Your task to perform on an android device: Is it going to rain this weekend? Image 0: 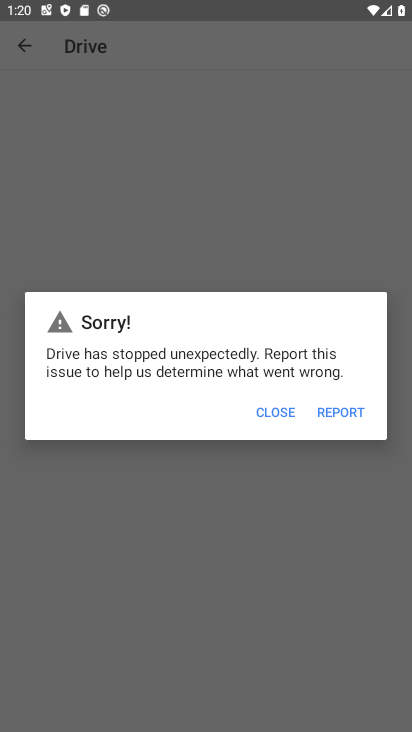
Step 0: press home button
Your task to perform on an android device: Is it going to rain this weekend? Image 1: 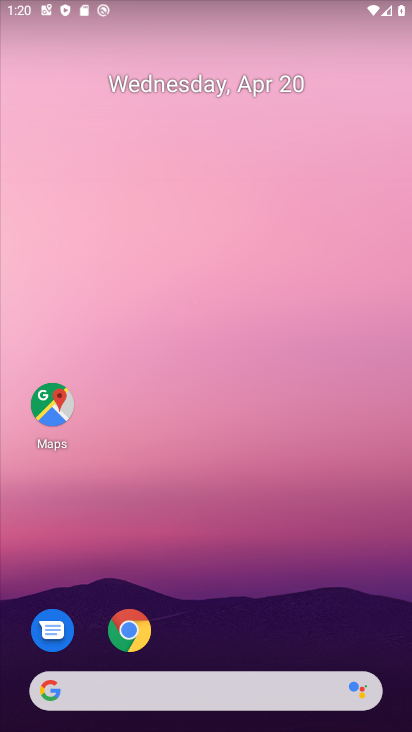
Step 1: click (153, 625)
Your task to perform on an android device: Is it going to rain this weekend? Image 2: 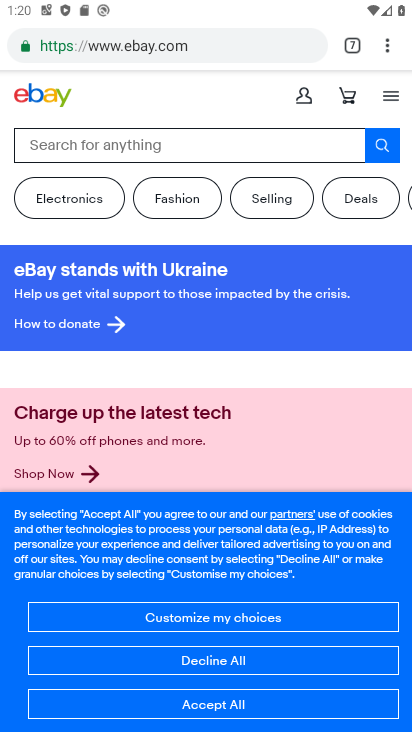
Step 2: click (353, 42)
Your task to perform on an android device: Is it going to rain this weekend? Image 3: 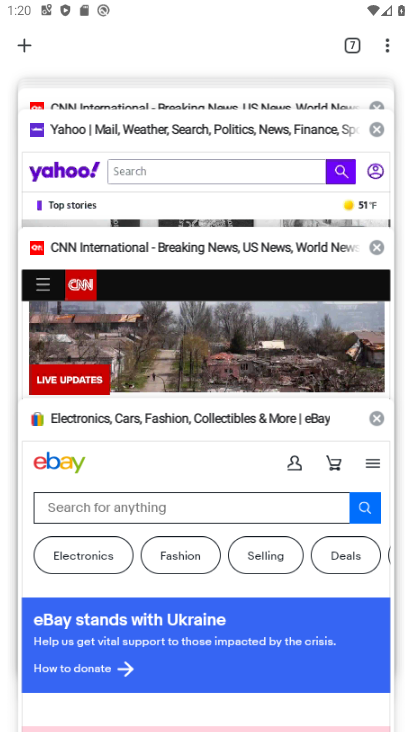
Step 3: click (20, 38)
Your task to perform on an android device: Is it going to rain this weekend? Image 4: 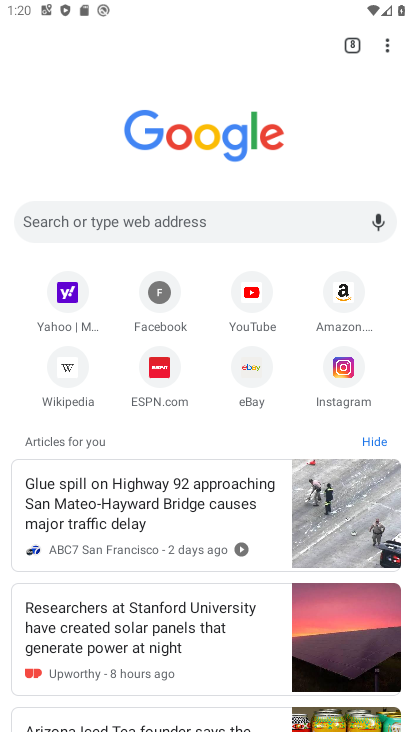
Step 4: click (155, 219)
Your task to perform on an android device: Is it going to rain this weekend? Image 5: 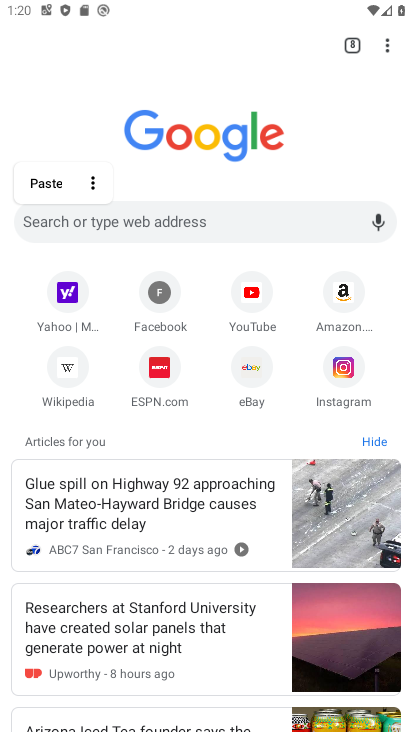
Step 5: click (155, 215)
Your task to perform on an android device: Is it going to rain this weekend? Image 6: 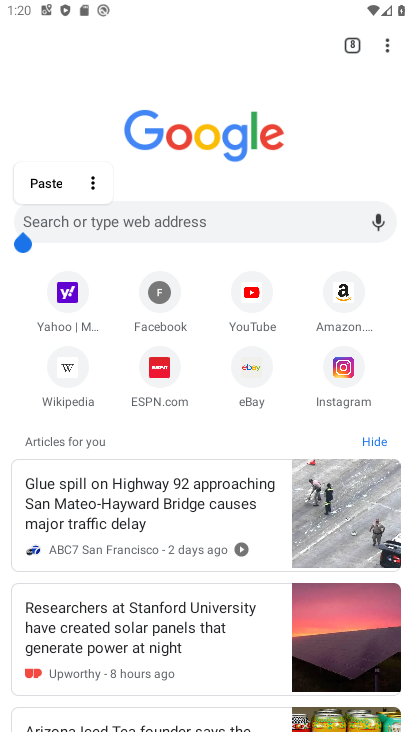
Step 6: click (155, 222)
Your task to perform on an android device: Is it going to rain this weekend? Image 7: 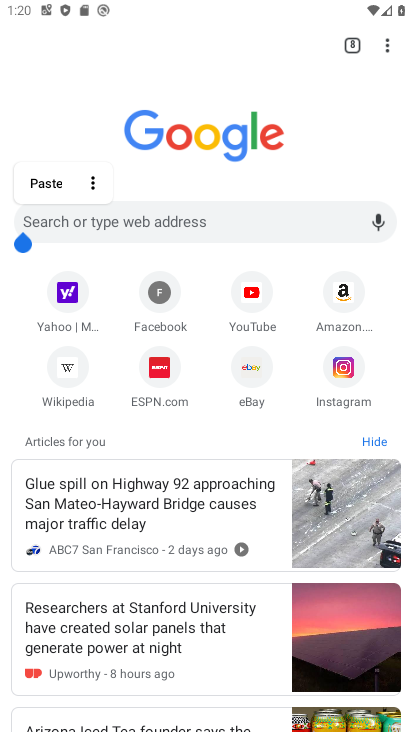
Step 7: click (162, 216)
Your task to perform on an android device: Is it going to rain this weekend? Image 8: 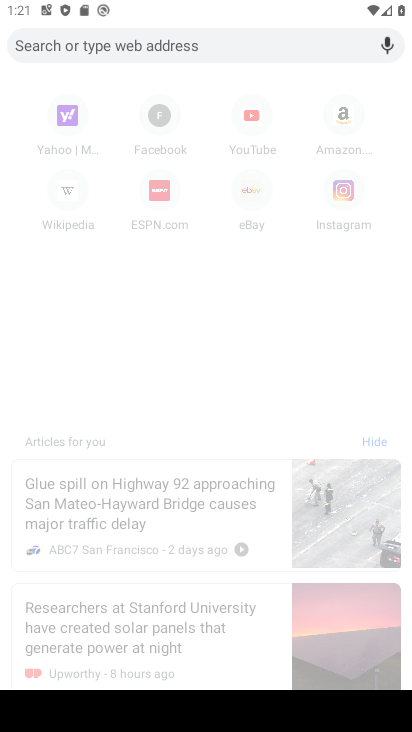
Step 8: type "is it going to rain this weekend"
Your task to perform on an android device: Is it going to rain this weekend? Image 9: 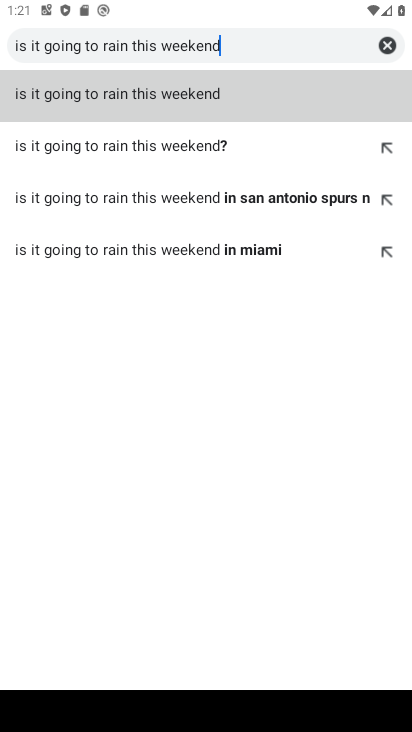
Step 9: click (181, 103)
Your task to perform on an android device: Is it going to rain this weekend? Image 10: 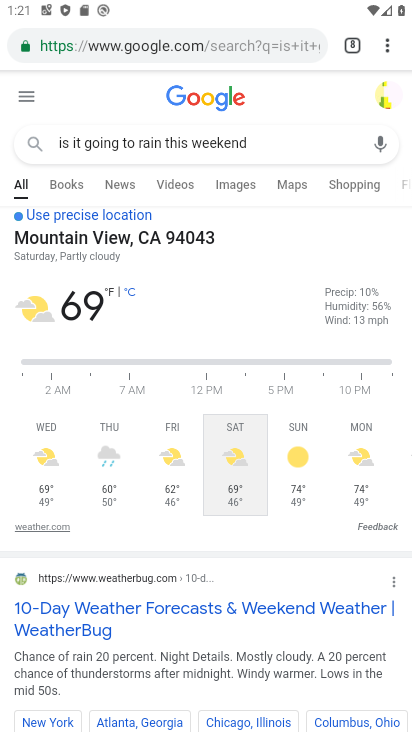
Step 10: task complete